Your task to perform on an android device: uninstall "Google Drive" Image 0: 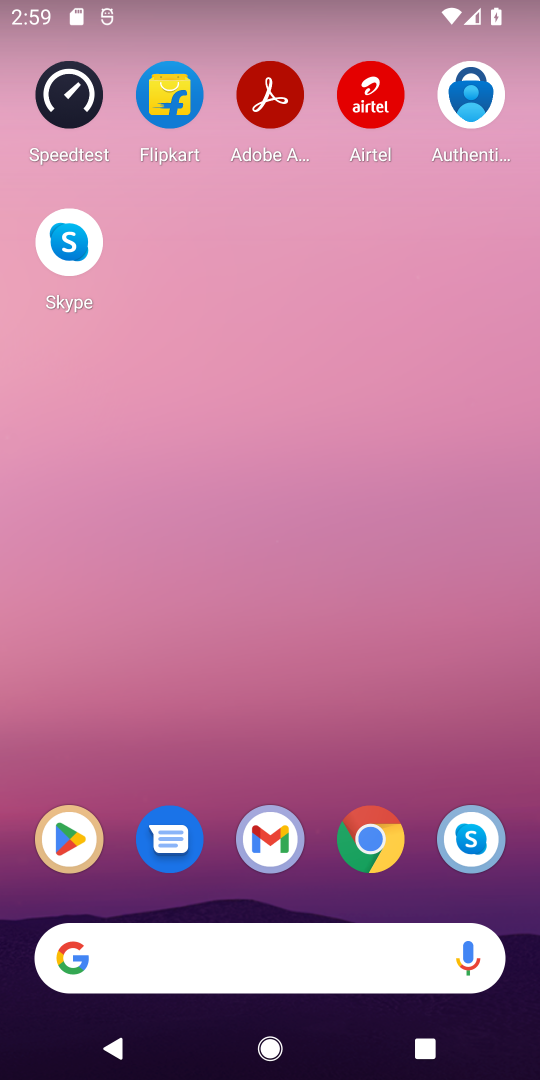
Step 0: click (48, 863)
Your task to perform on an android device: uninstall "Google Drive" Image 1: 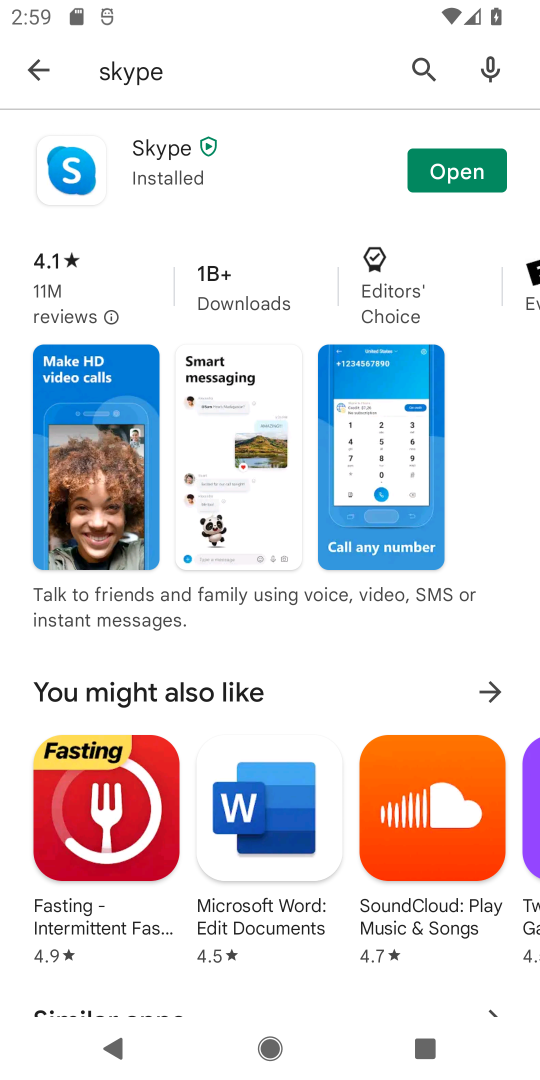
Step 1: click (427, 75)
Your task to perform on an android device: uninstall "Google Drive" Image 2: 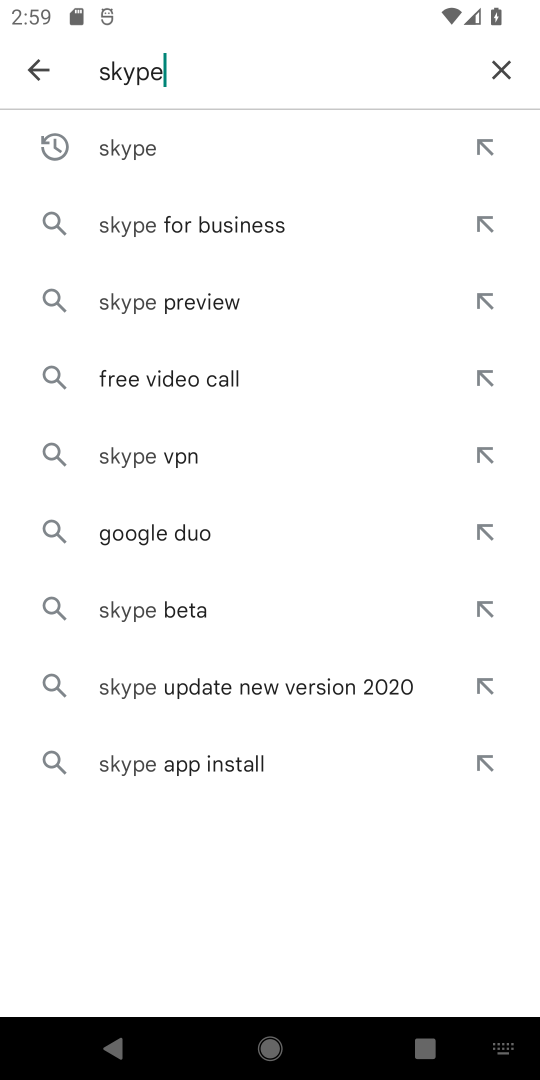
Step 2: click (510, 78)
Your task to perform on an android device: uninstall "Google Drive" Image 3: 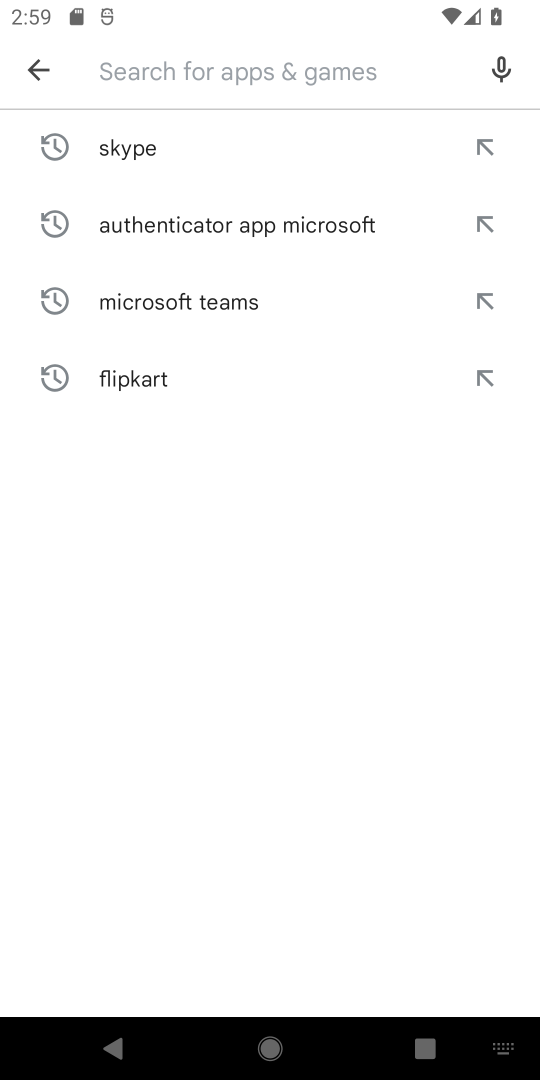
Step 3: type "google drive"
Your task to perform on an android device: uninstall "Google Drive" Image 4: 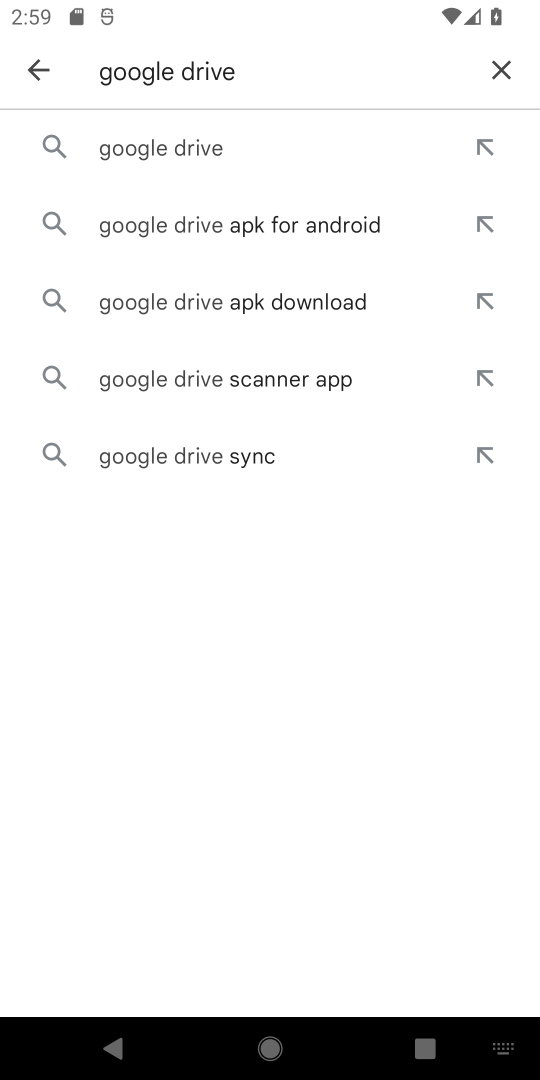
Step 4: click (254, 150)
Your task to perform on an android device: uninstall "Google Drive" Image 5: 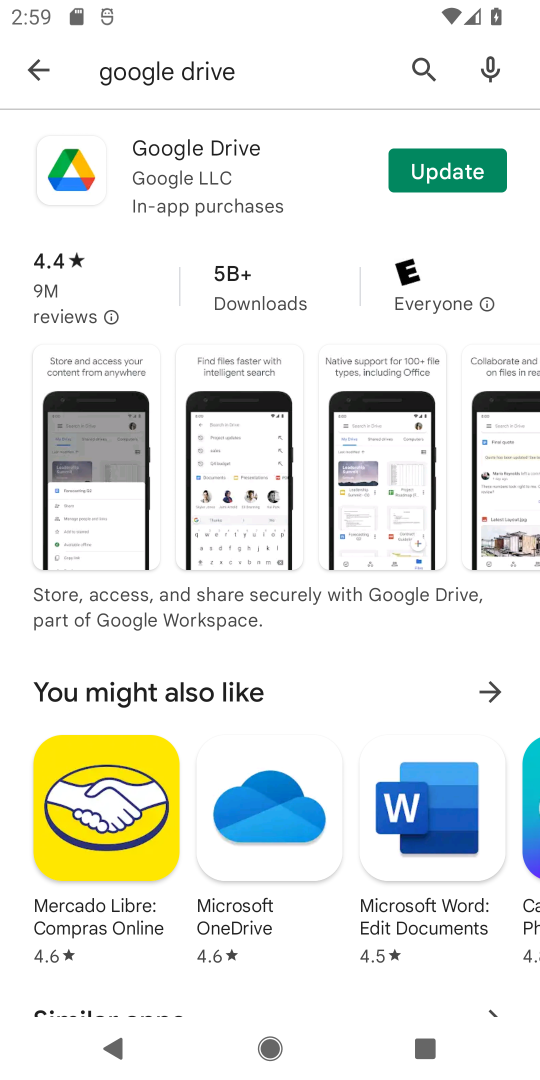
Step 5: click (429, 164)
Your task to perform on an android device: uninstall "Google Drive" Image 6: 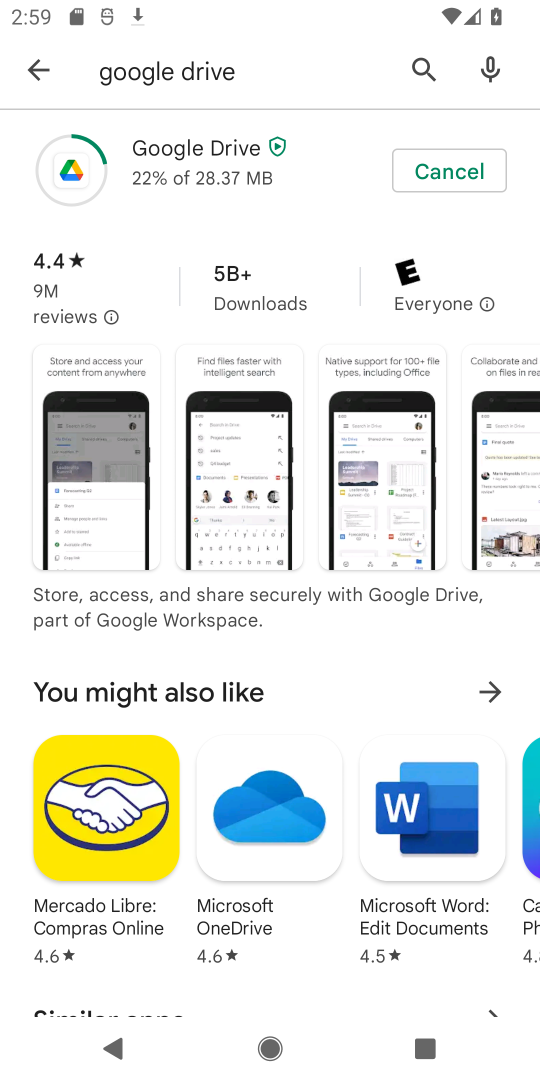
Step 6: task complete